Your task to perform on an android device: Empty the shopping cart on amazon.com. Image 0: 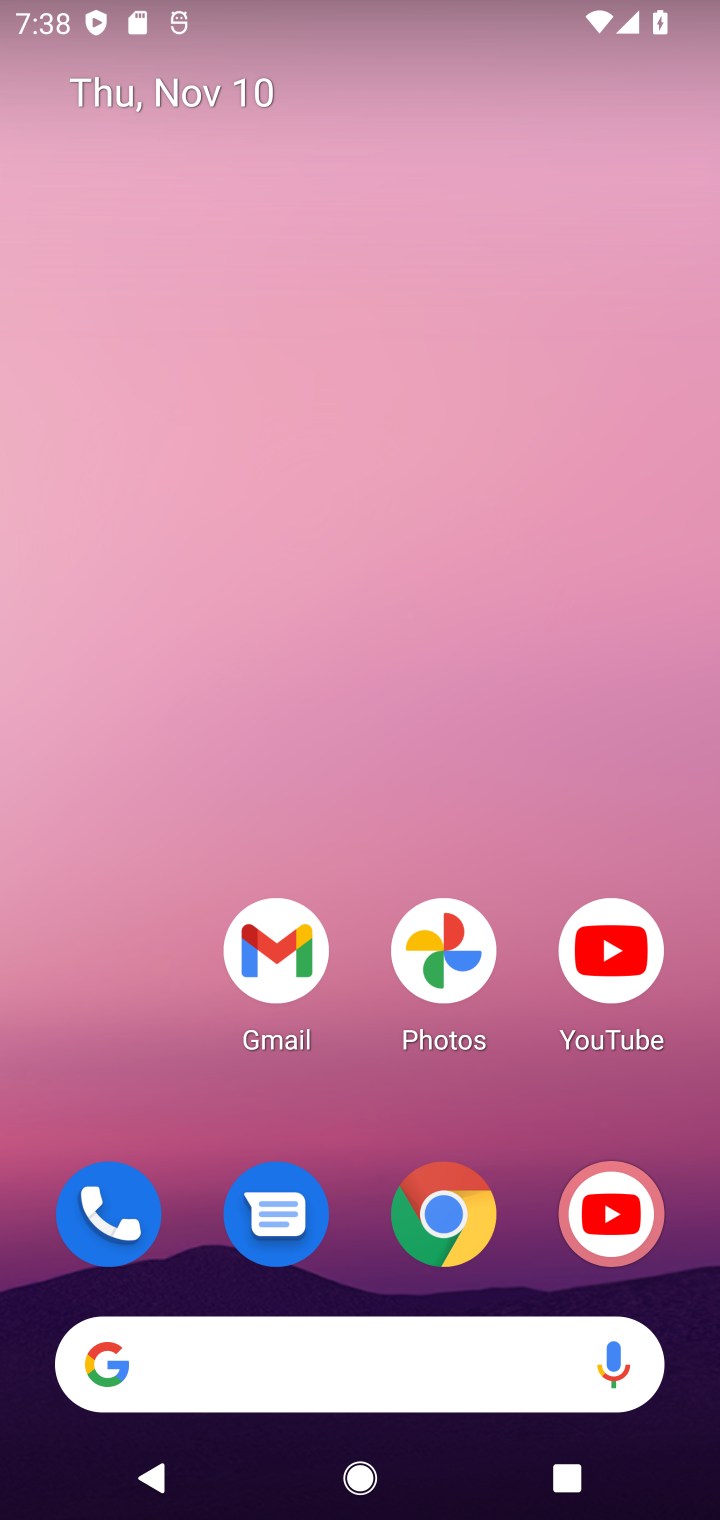
Step 0: drag from (437, 855) to (492, 310)
Your task to perform on an android device: Empty the shopping cart on amazon.com. Image 1: 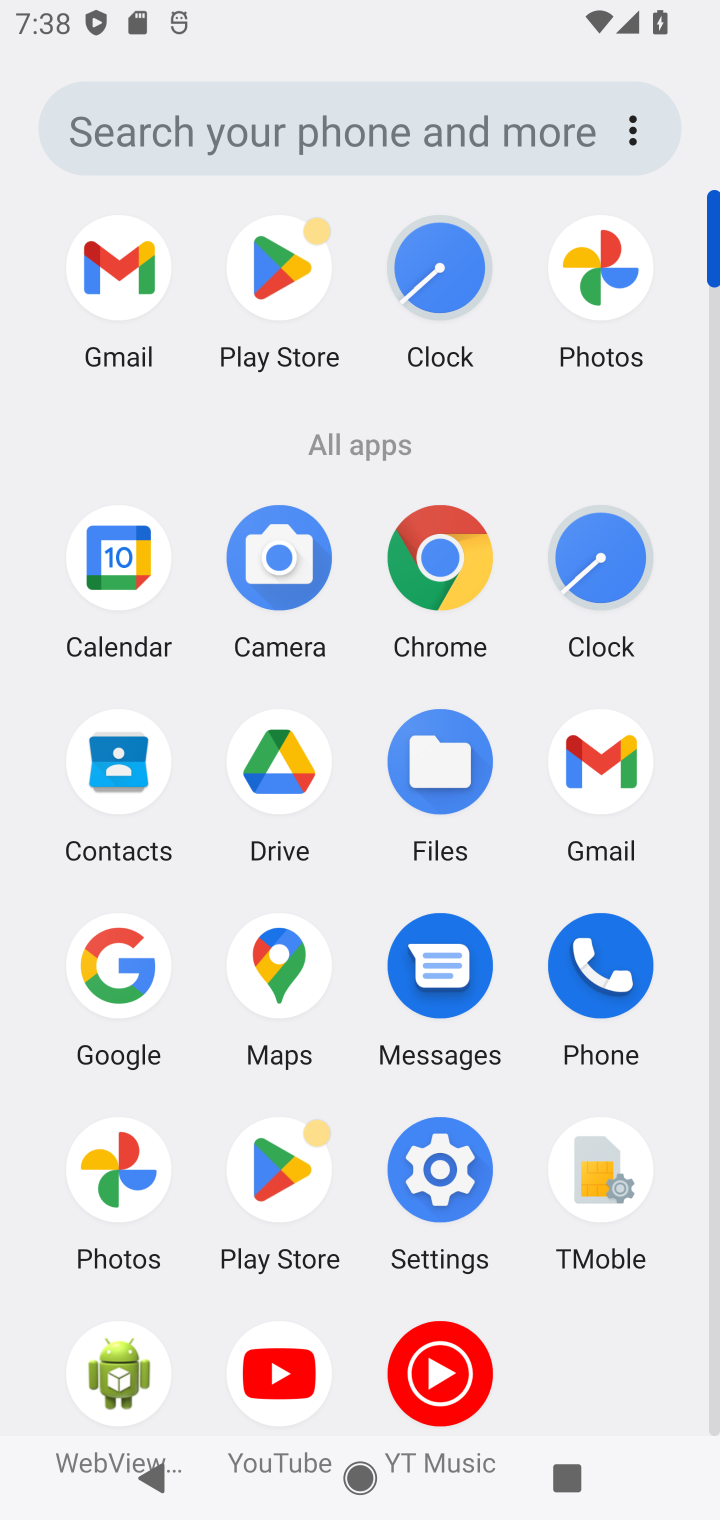
Step 1: click (430, 559)
Your task to perform on an android device: Empty the shopping cart on amazon.com. Image 2: 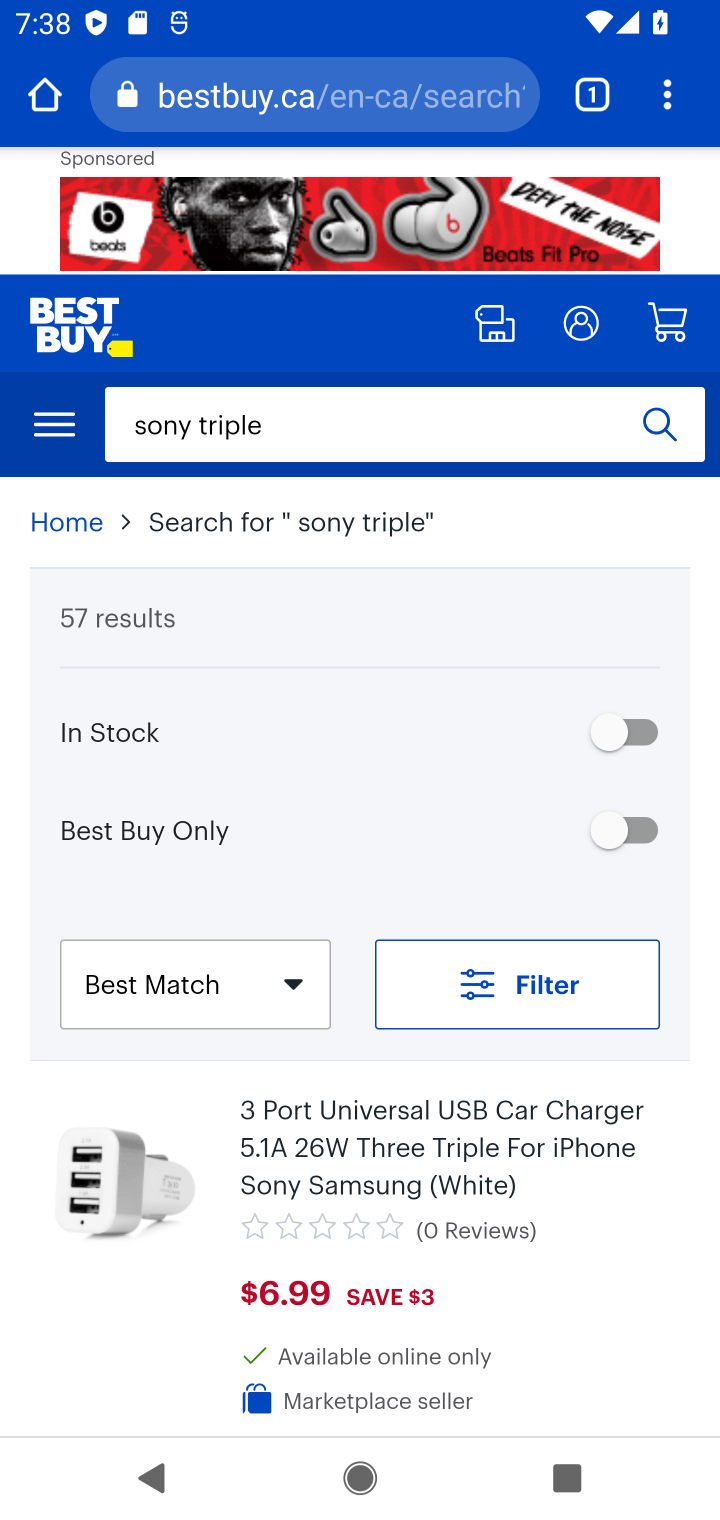
Step 2: click (229, 106)
Your task to perform on an android device: Empty the shopping cart on amazon.com. Image 3: 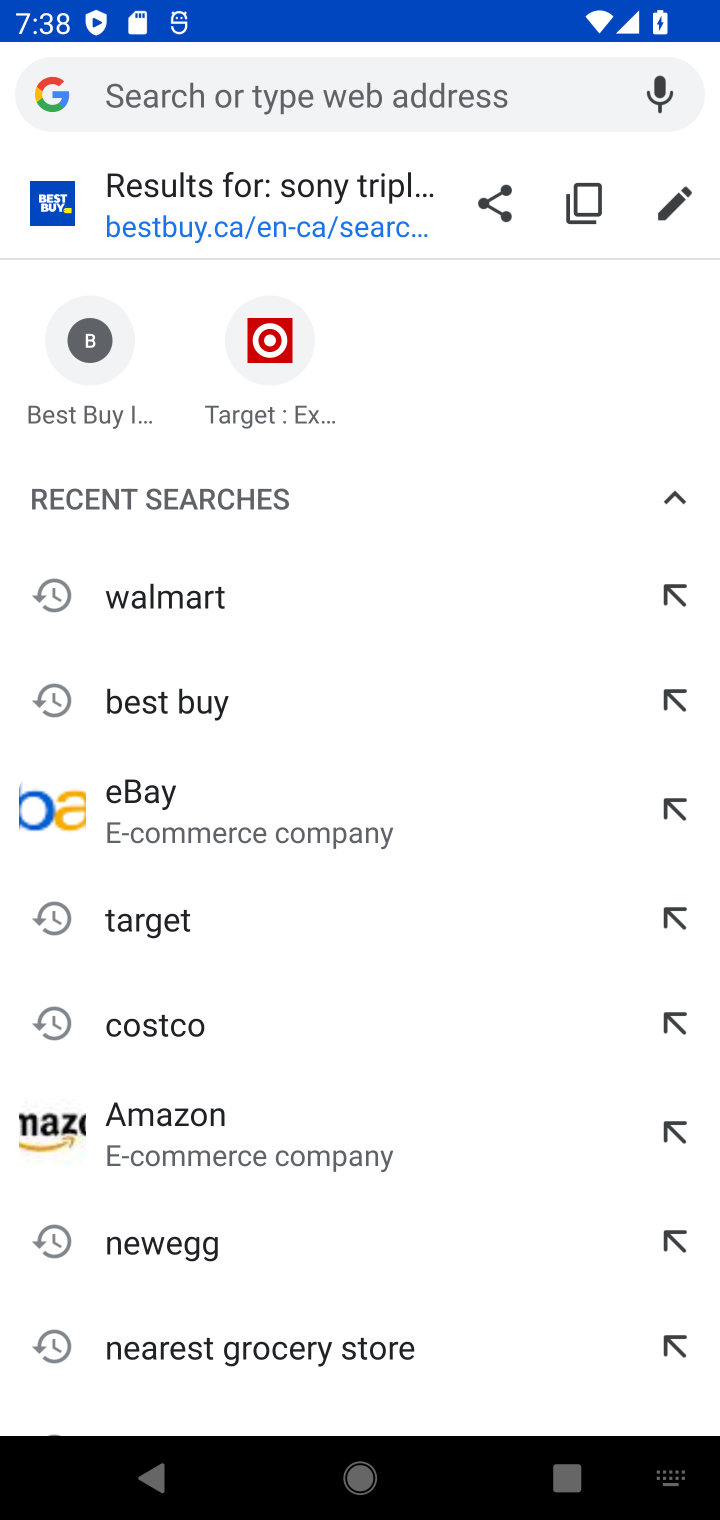
Step 3: type "amazon.com."
Your task to perform on an android device: Empty the shopping cart on amazon.com. Image 4: 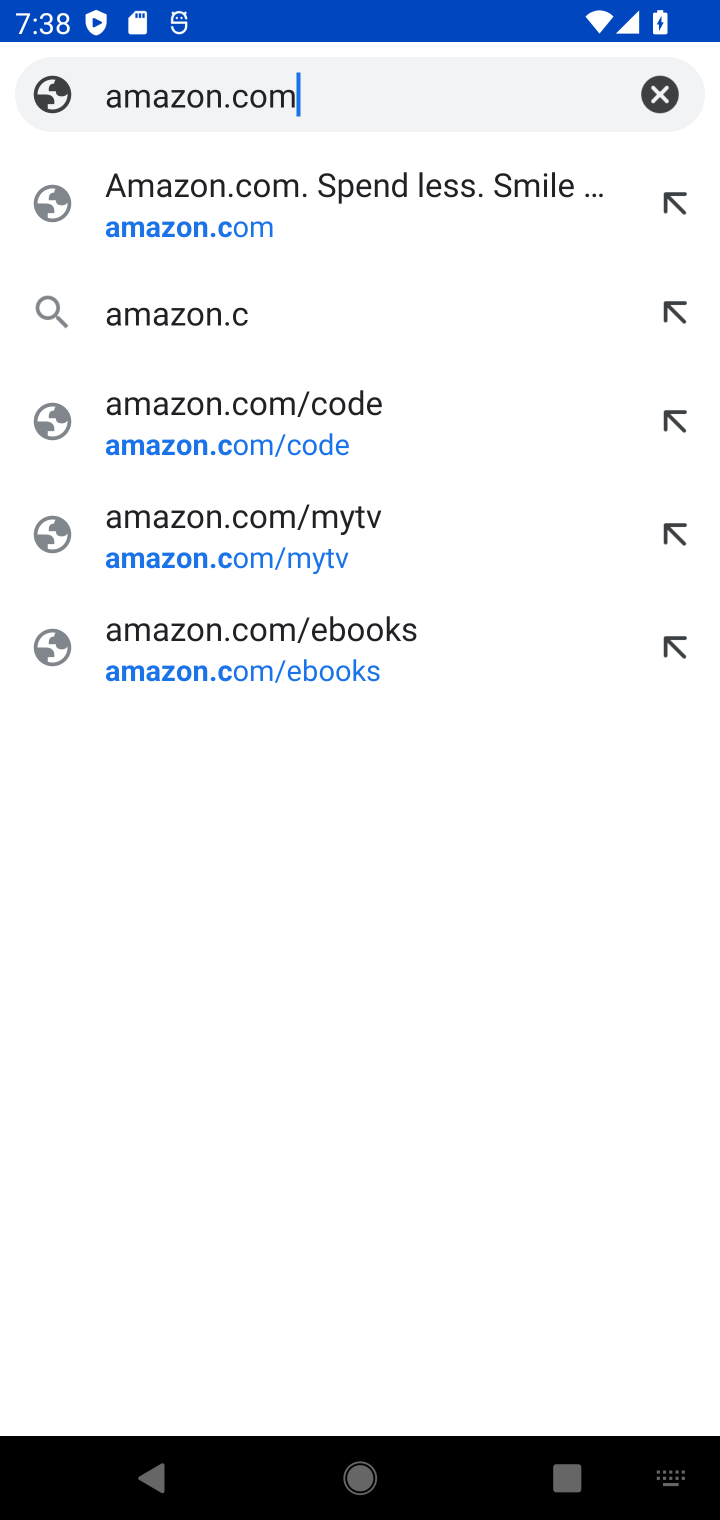
Step 4: press enter
Your task to perform on an android device: Empty the shopping cart on amazon.com. Image 5: 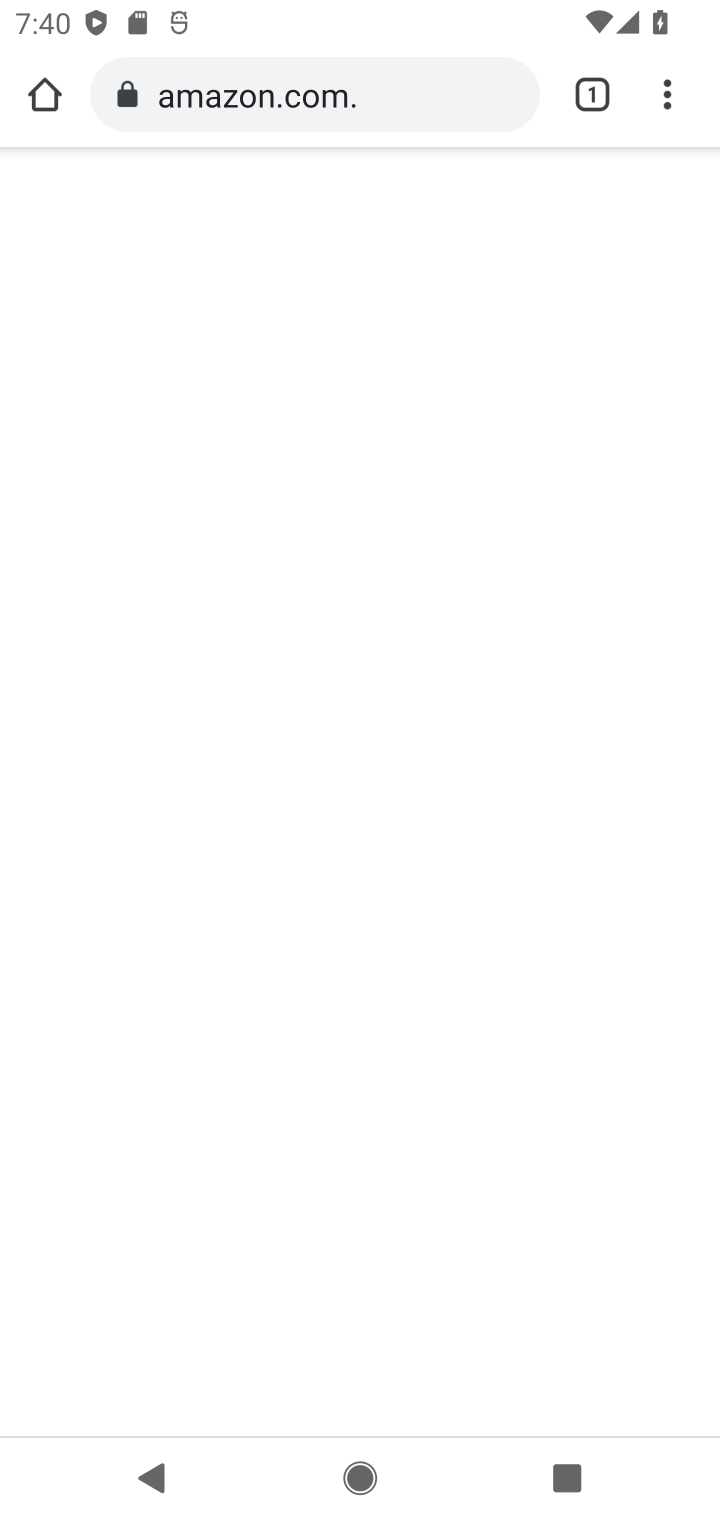
Step 5: click (307, 100)
Your task to perform on an android device: Empty the shopping cart on amazon.com. Image 6: 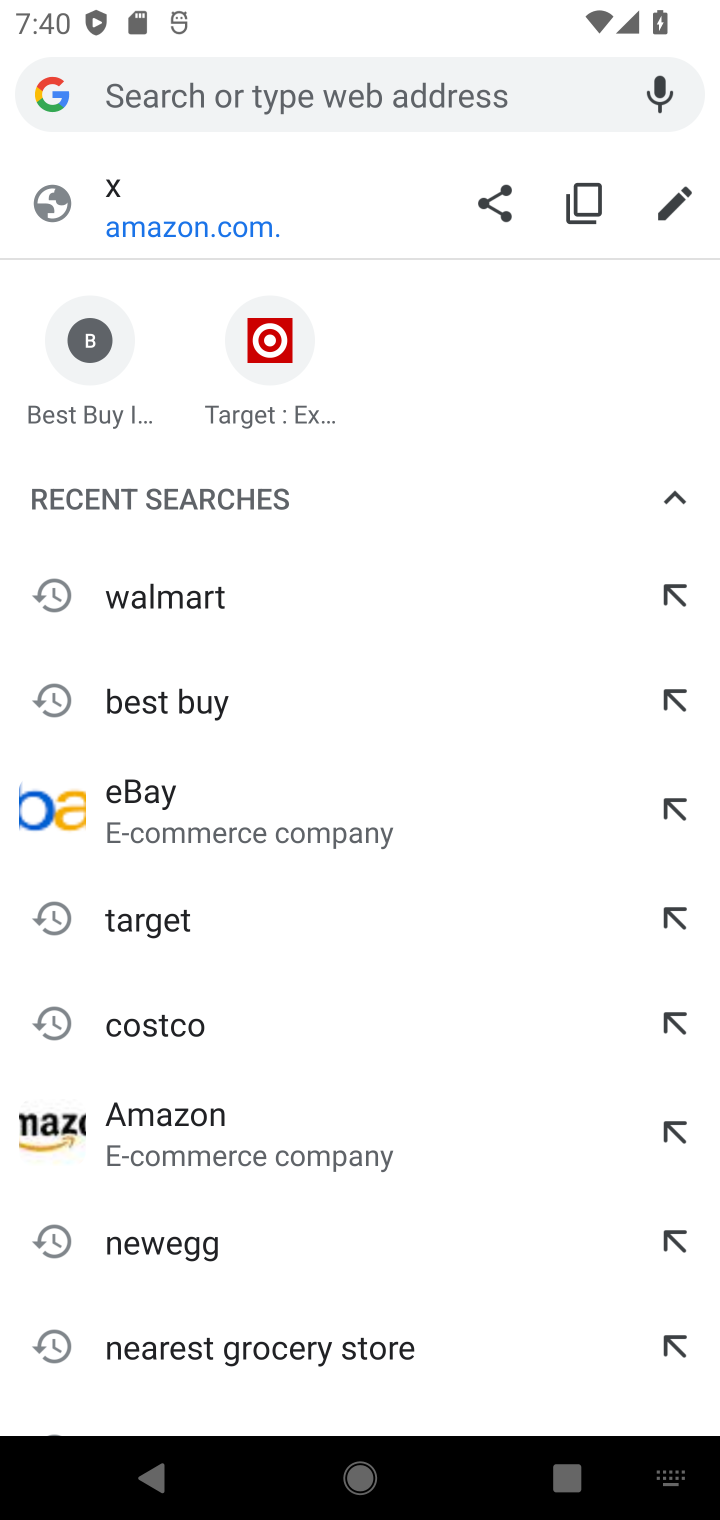
Step 6: type "amazon"
Your task to perform on an android device: Empty the shopping cart on amazon.com. Image 7: 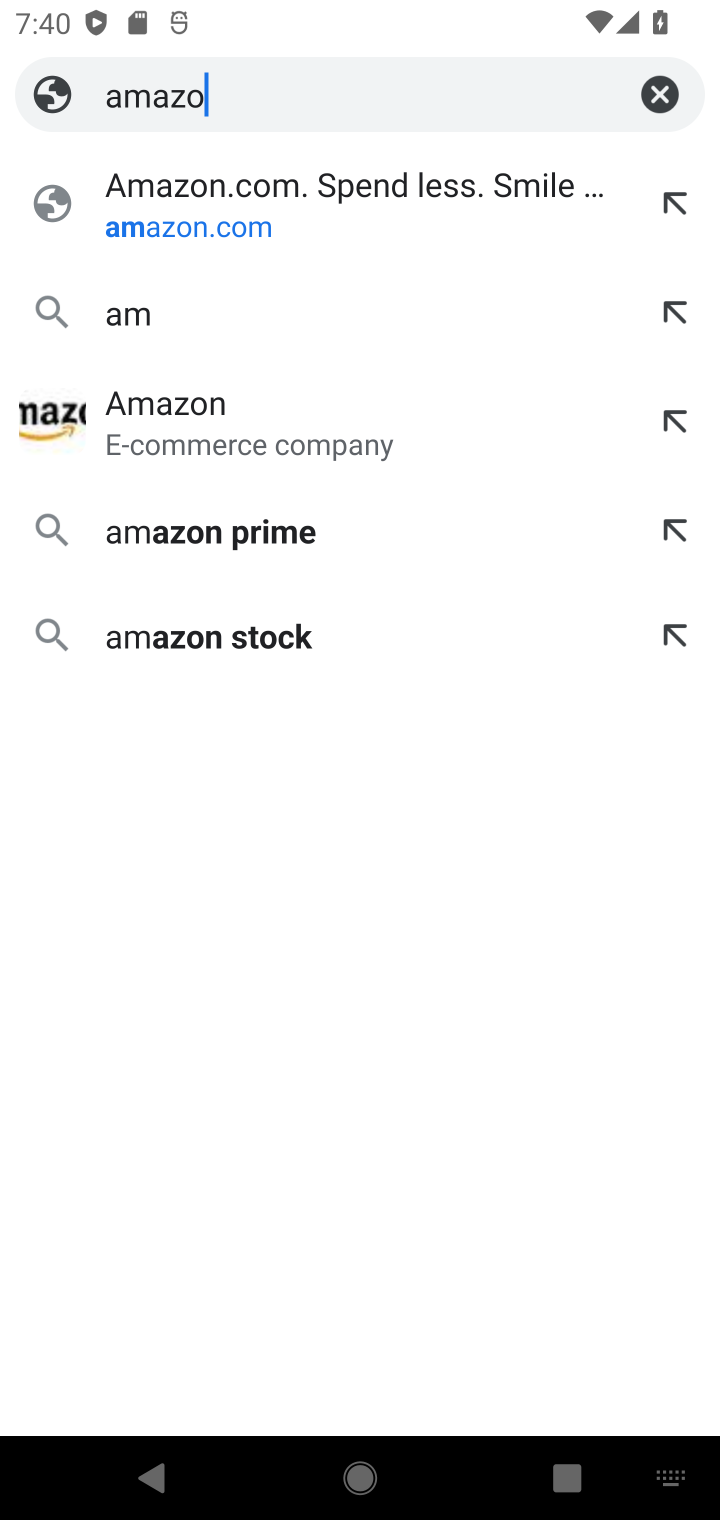
Step 7: press enter
Your task to perform on an android device: Empty the shopping cart on amazon.com. Image 8: 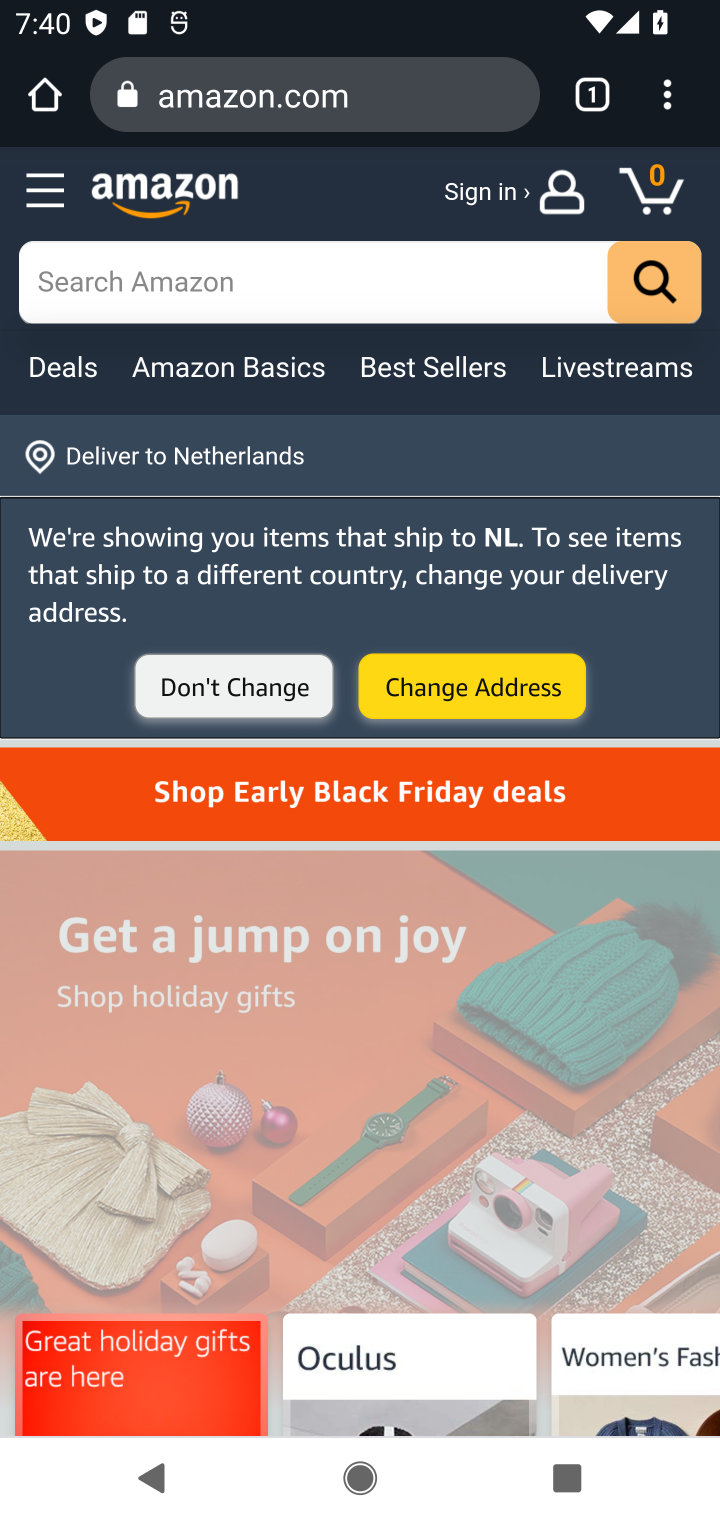
Step 8: task complete